Your task to perform on an android device: Open notification settings Image 0: 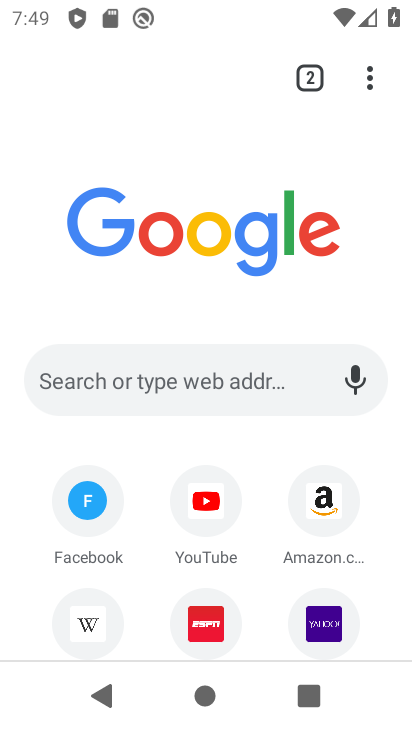
Step 0: press home button
Your task to perform on an android device: Open notification settings Image 1: 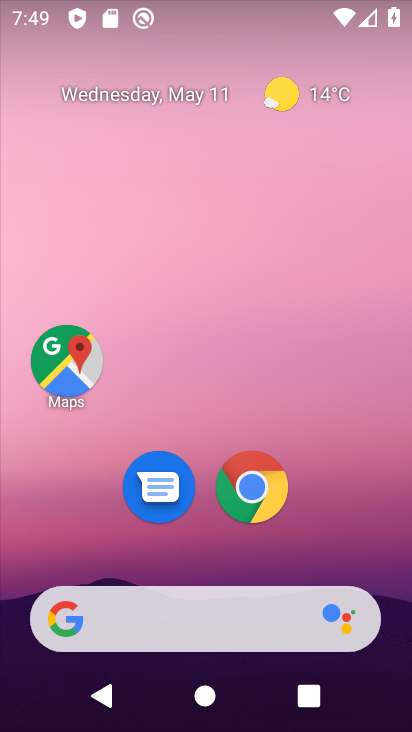
Step 1: drag from (235, 571) to (288, 226)
Your task to perform on an android device: Open notification settings Image 2: 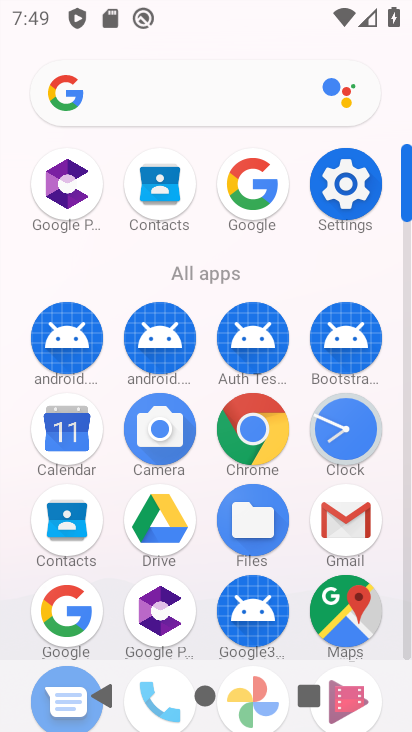
Step 2: click (345, 181)
Your task to perform on an android device: Open notification settings Image 3: 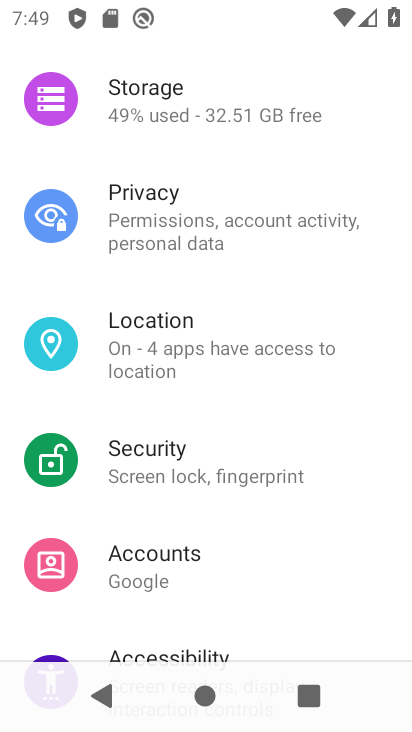
Step 3: drag from (316, 175) to (341, 495)
Your task to perform on an android device: Open notification settings Image 4: 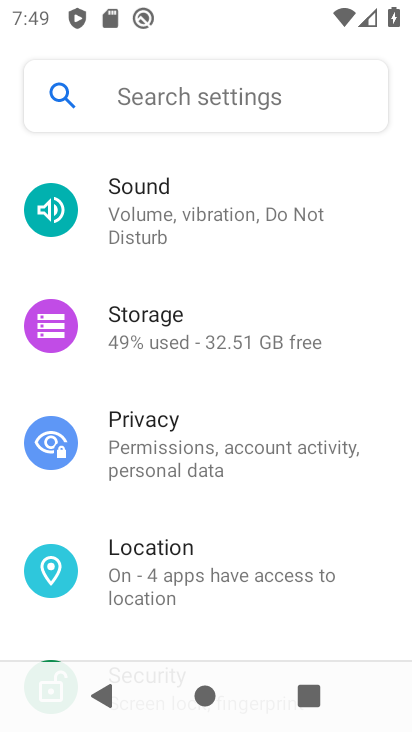
Step 4: drag from (347, 184) to (370, 542)
Your task to perform on an android device: Open notification settings Image 5: 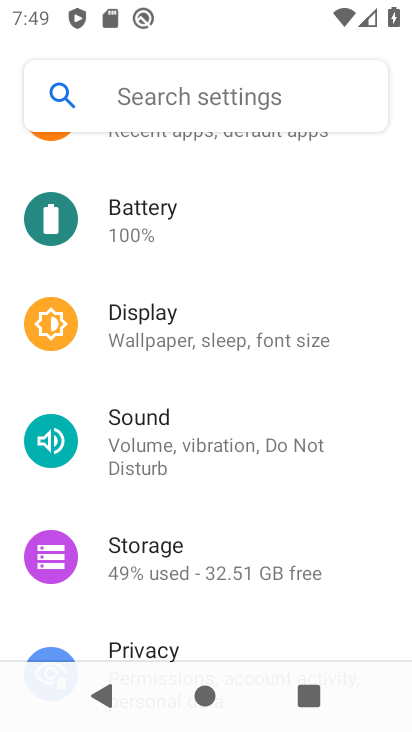
Step 5: drag from (370, 348) to (371, 577)
Your task to perform on an android device: Open notification settings Image 6: 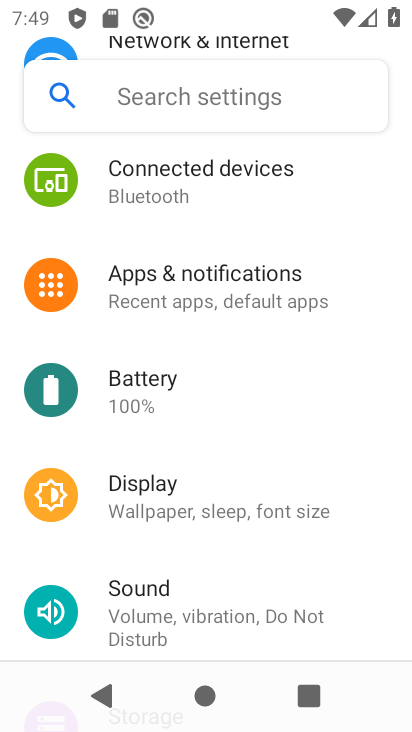
Step 6: click (238, 285)
Your task to perform on an android device: Open notification settings Image 7: 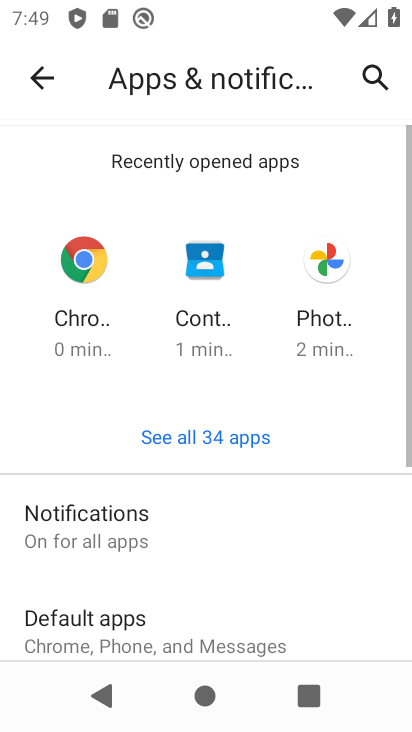
Step 7: drag from (271, 647) to (336, 257)
Your task to perform on an android device: Open notification settings Image 8: 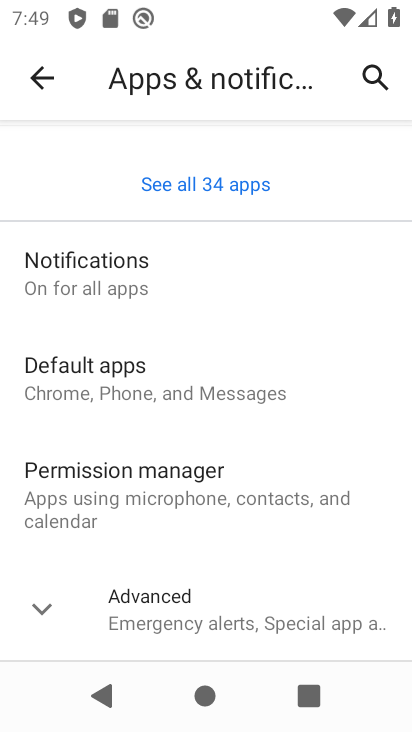
Step 8: click (91, 600)
Your task to perform on an android device: Open notification settings Image 9: 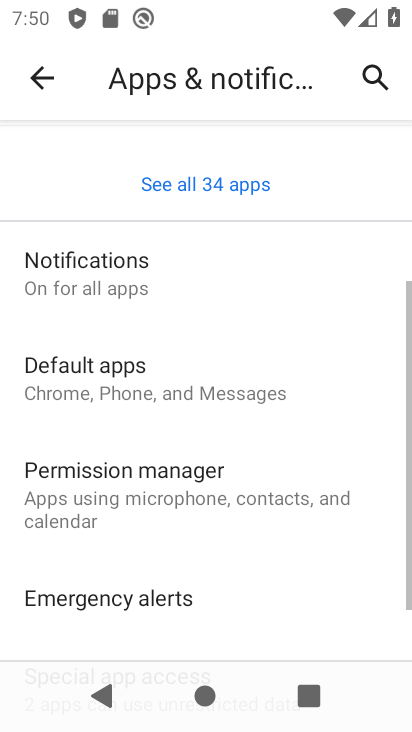
Step 9: task complete